Your task to perform on an android device: What is the recent news? Image 0: 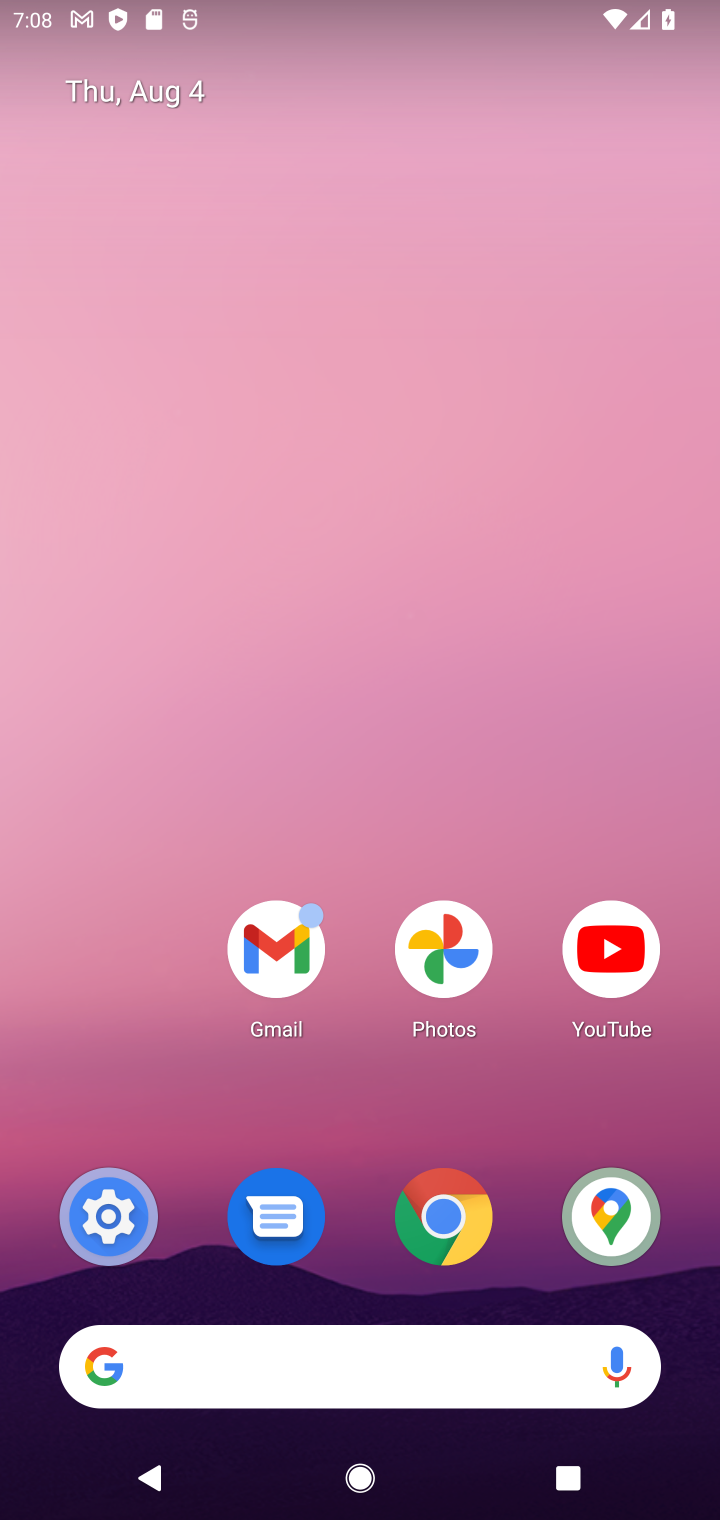
Step 0: drag from (0, 448) to (714, 589)
Your task to perform on an android device: What is the recent news? Image 1: 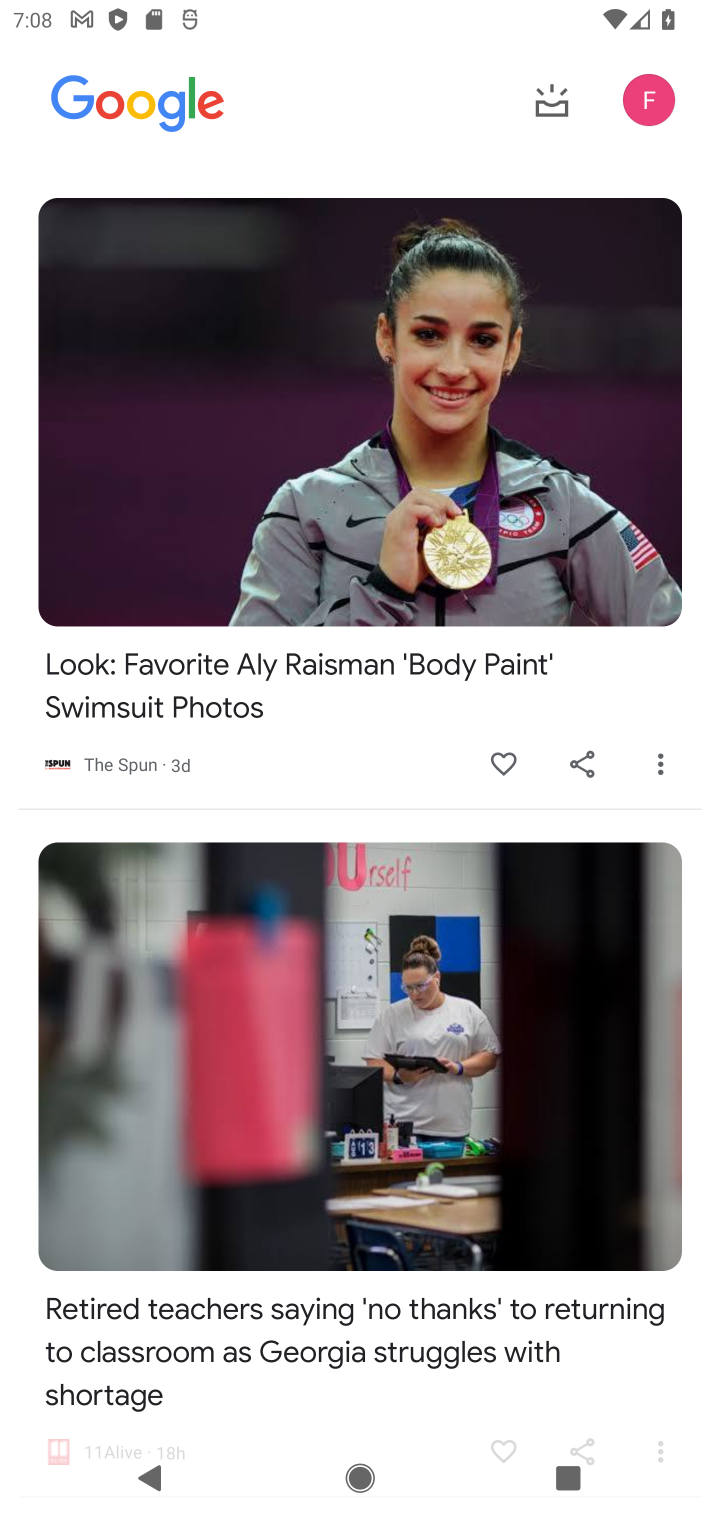
Step 1: task complete